Your task to perform on an android device: turn on the 12-hour format for clock Image 0: 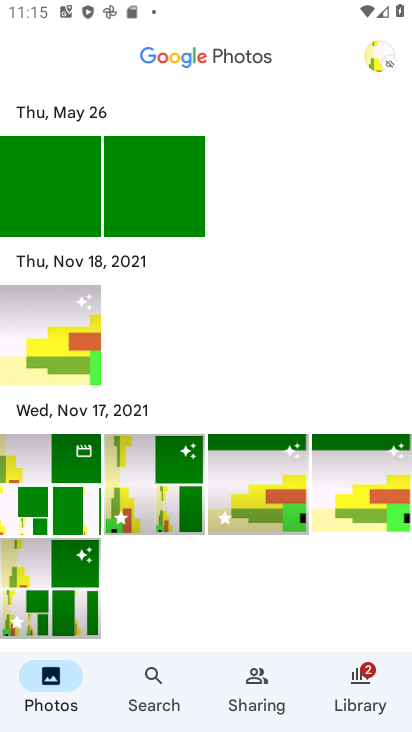
Step 0: press home button
Your task to perform on an android device: turn on the 12-hour format for clock Image 1: 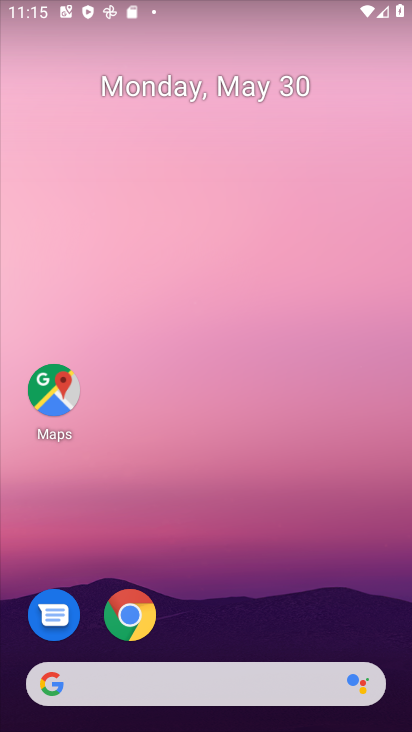
Step 1: drag from (309, 412) to (237, 3)
Your task to perform on an android device: turn on the 12-hour format for clock Image 2: 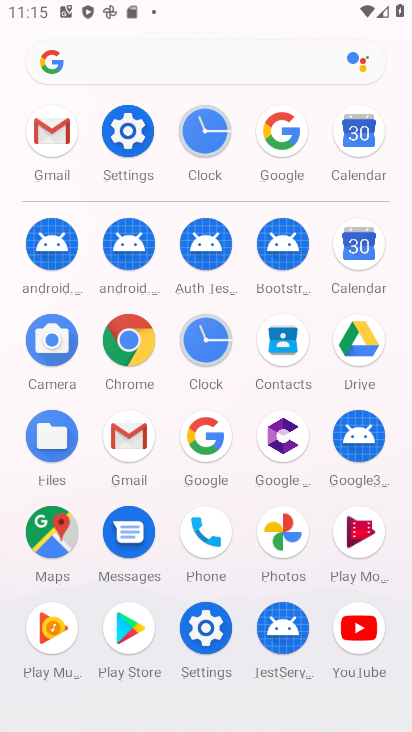
Step 2: click (215, 136)
Your task to perform on an android device: turn on the 12-hour format for clock Image 3: 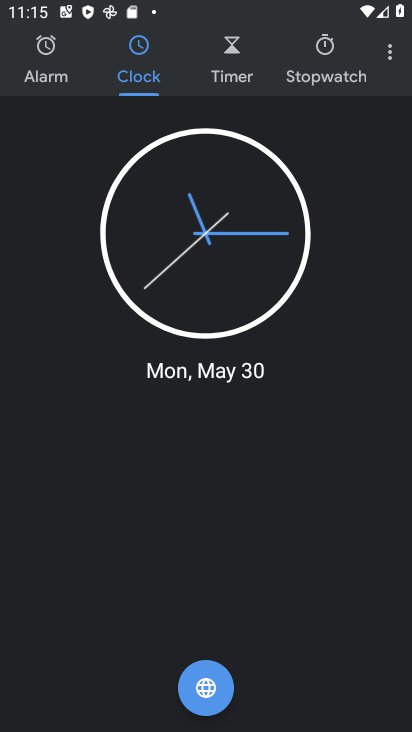
Step 3: click (395, 52)
Your task to perform on an android device: turn on the 12-hour format for clock Image 4: 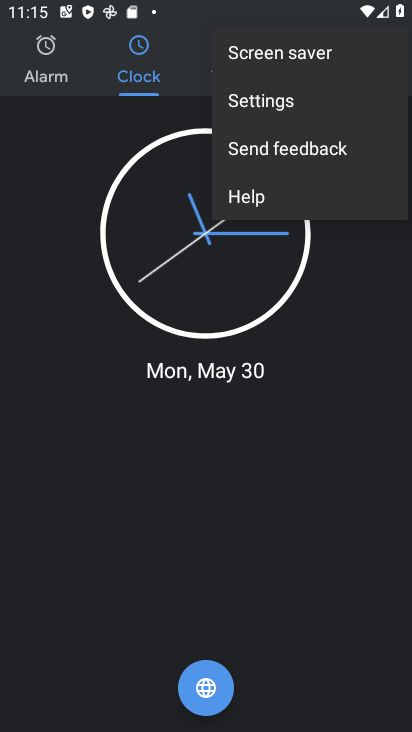
Step 4: click (303, 94)
Your task to perform on an android device: turn on the 12-hour format for clock Image 5: 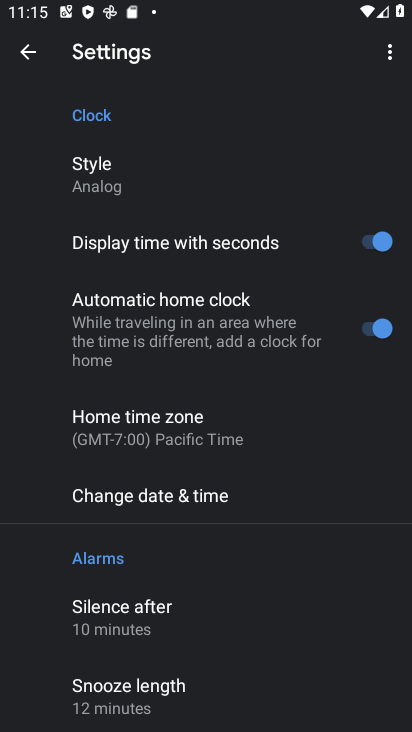
Step 5: click (221, 482)
Your task to perform on an android device: turn on the 12-hour format for clock Image 6: 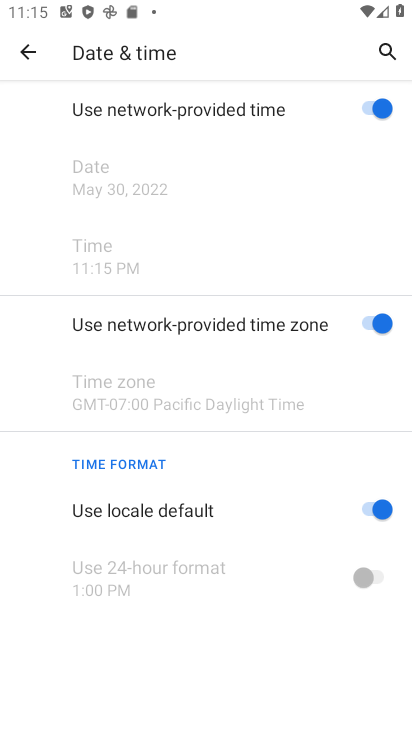
Step 6: task complete